Your task to perform on an android device: turn pop-ups on in chrome Image 0: 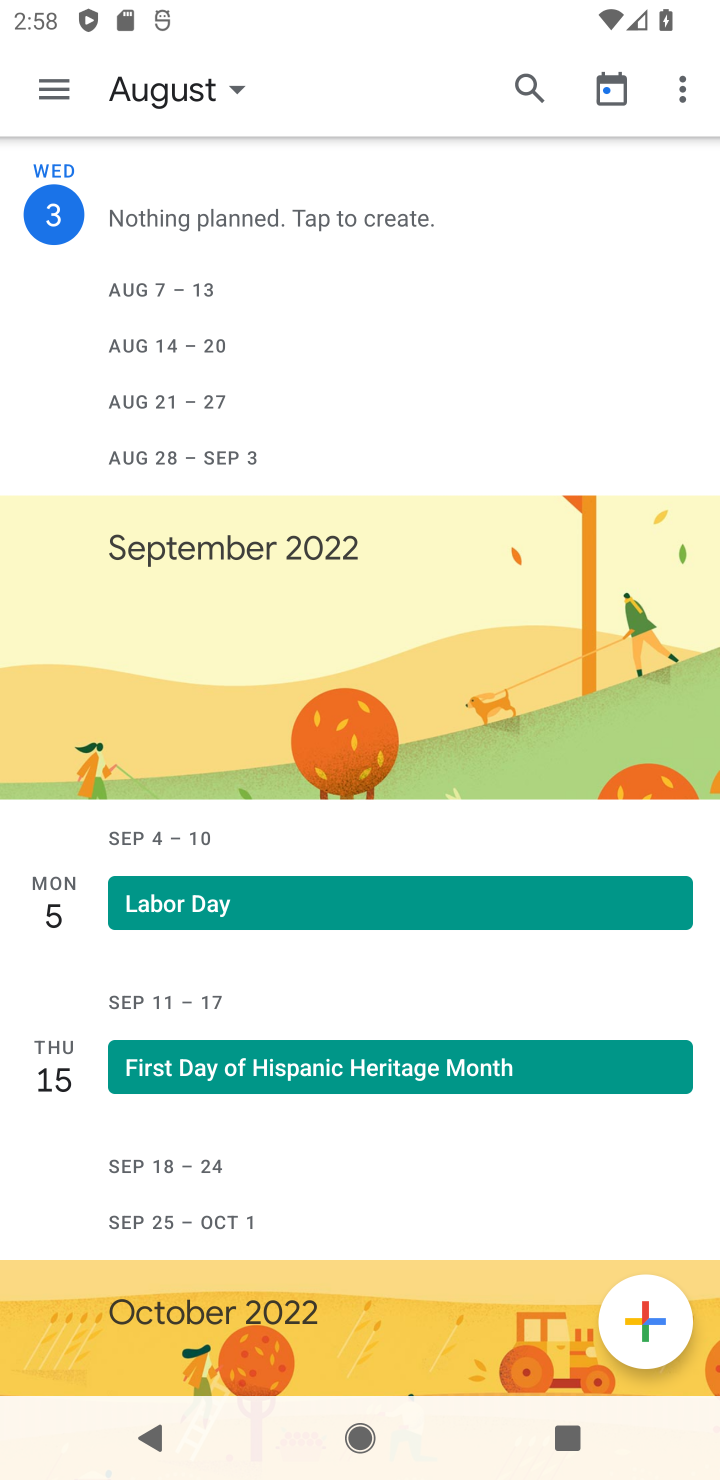
Step 0: press home button
Your task to perform on an android device: turn pop-ups on in chrome Image 1: 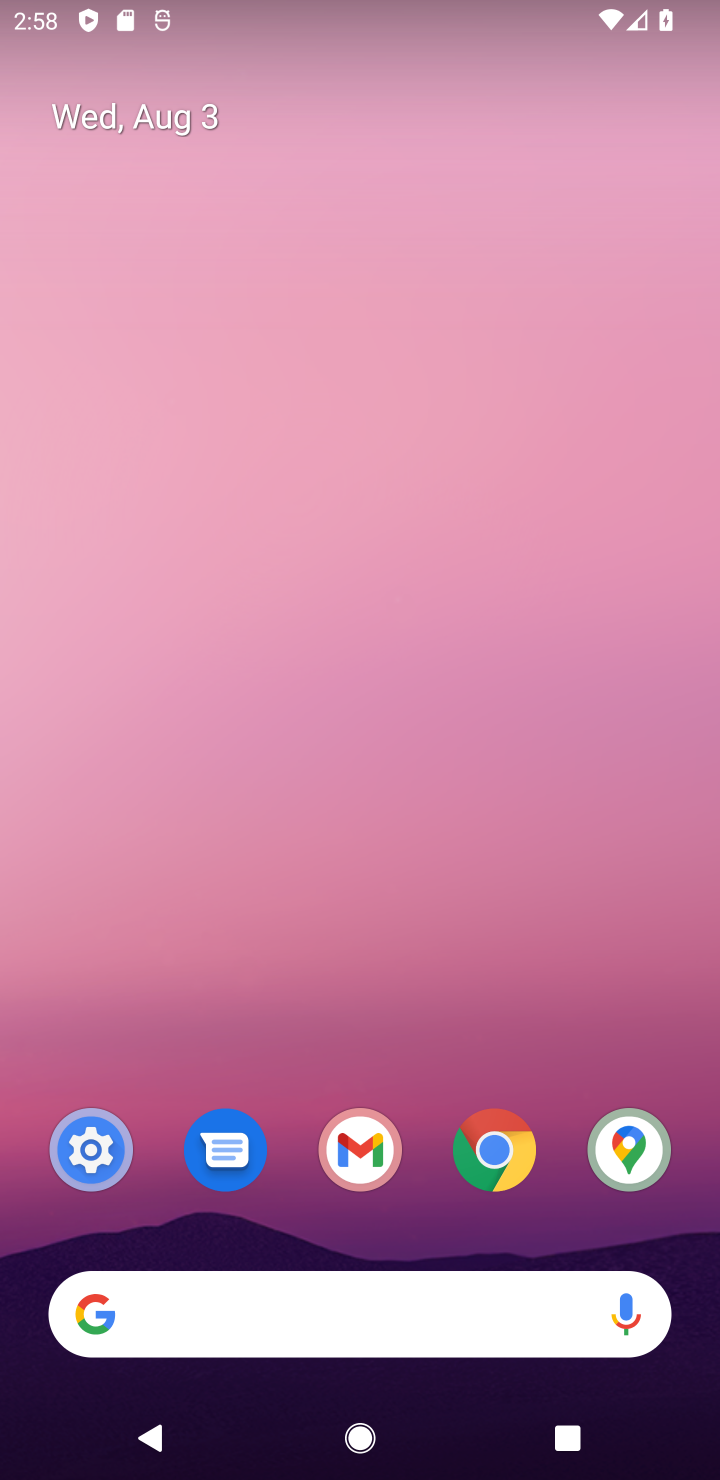
Step 1: click (503, 1156)
Your task to perform on an android device: turn pop-ups on in chrome Image 2: 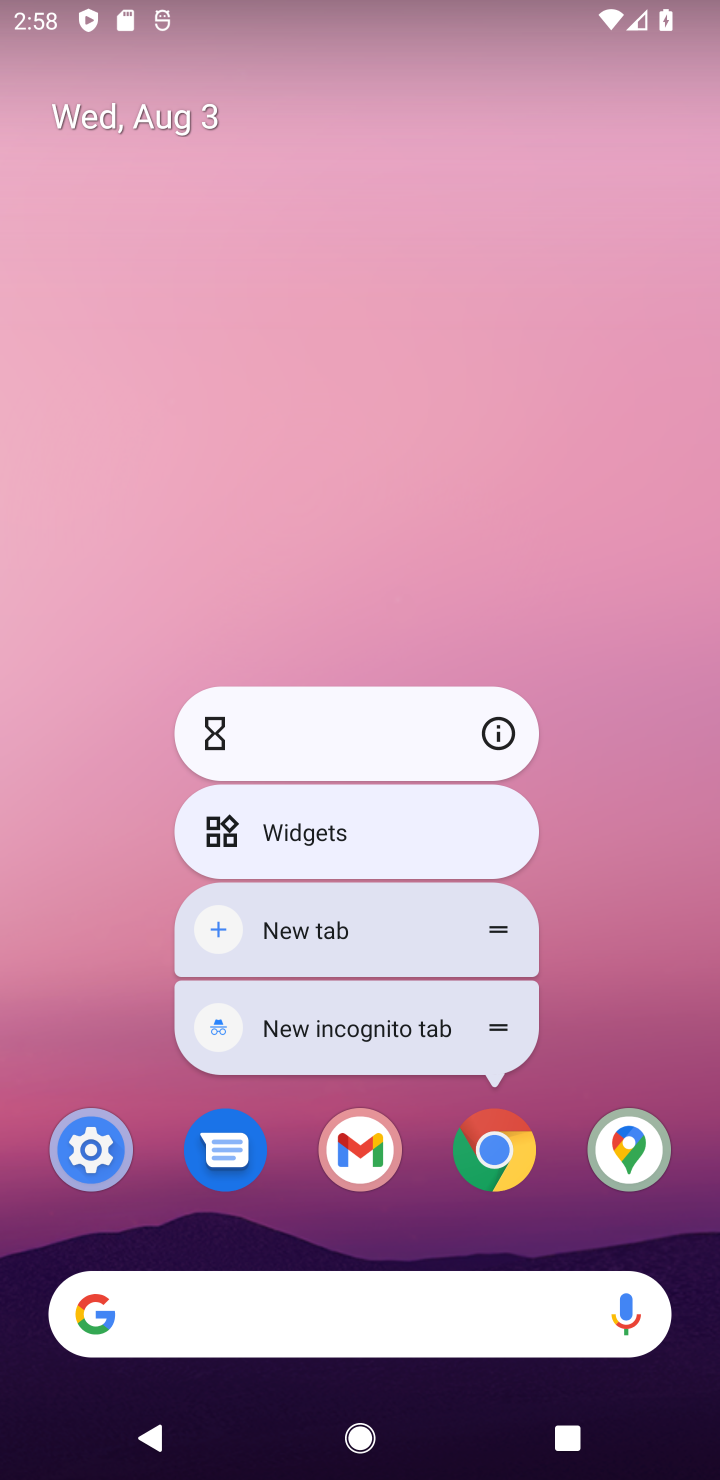
Step 2: click (503, 1156)
Your task to perform on an android device: turn pop-ups on in chrome Image 3: 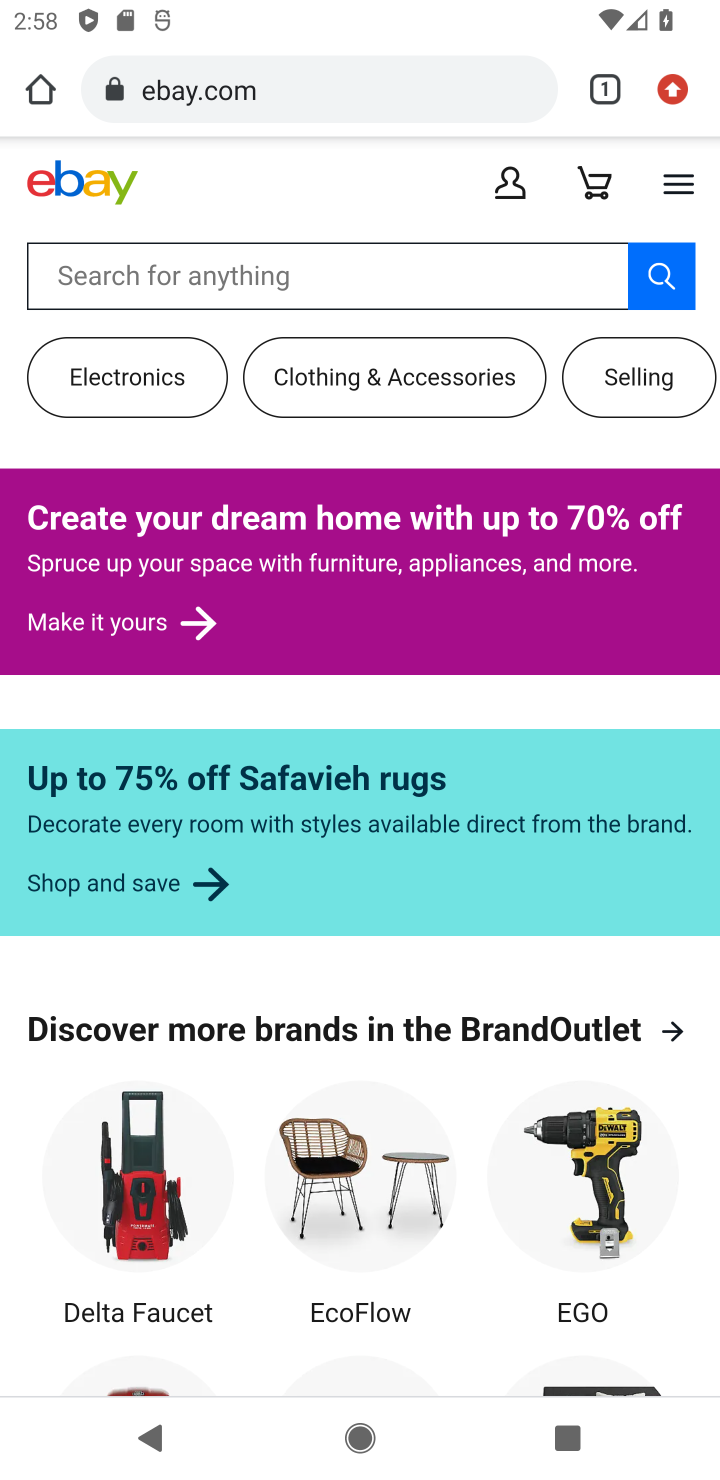
Step 3: drag from (665, 95) to (442, 1225)
Your task to perform on an android device: turn pop-ups on in chrome Image 4: 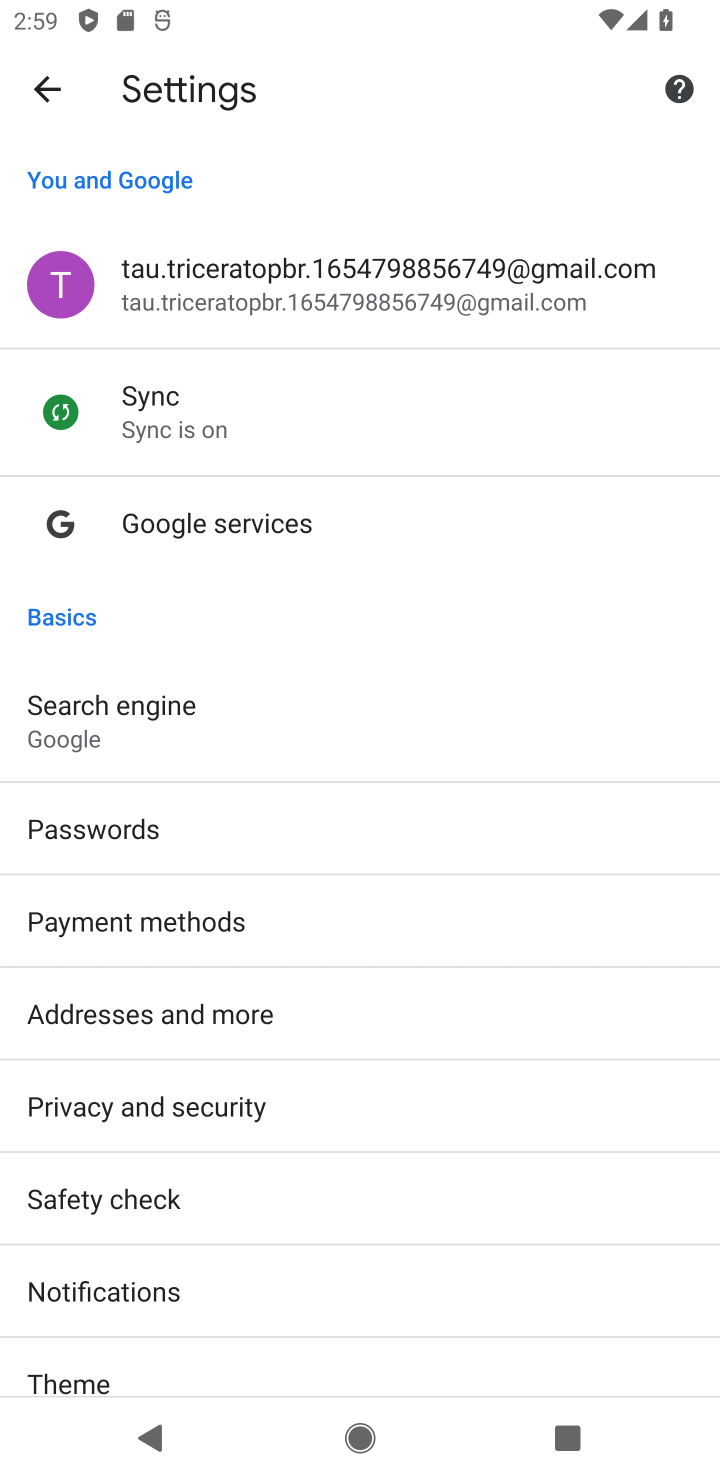
Step 4: drag from (211, 1268) to (365, 173)
Your task to perform on an android device: turn pop-ups on in chrome Image 5: 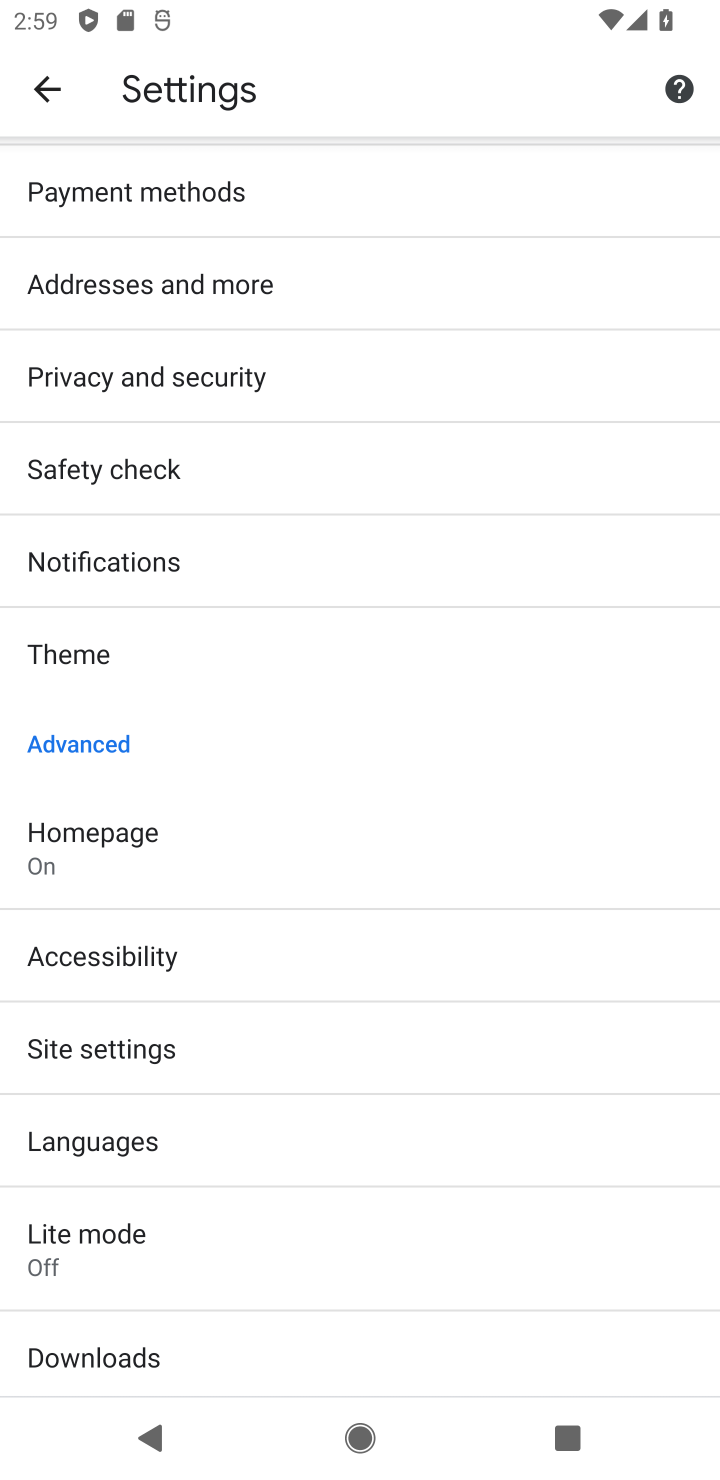
Step 5: click (161, 1054)
Your task to perform on an android device: turn pop-ups on in chrome Image 6: 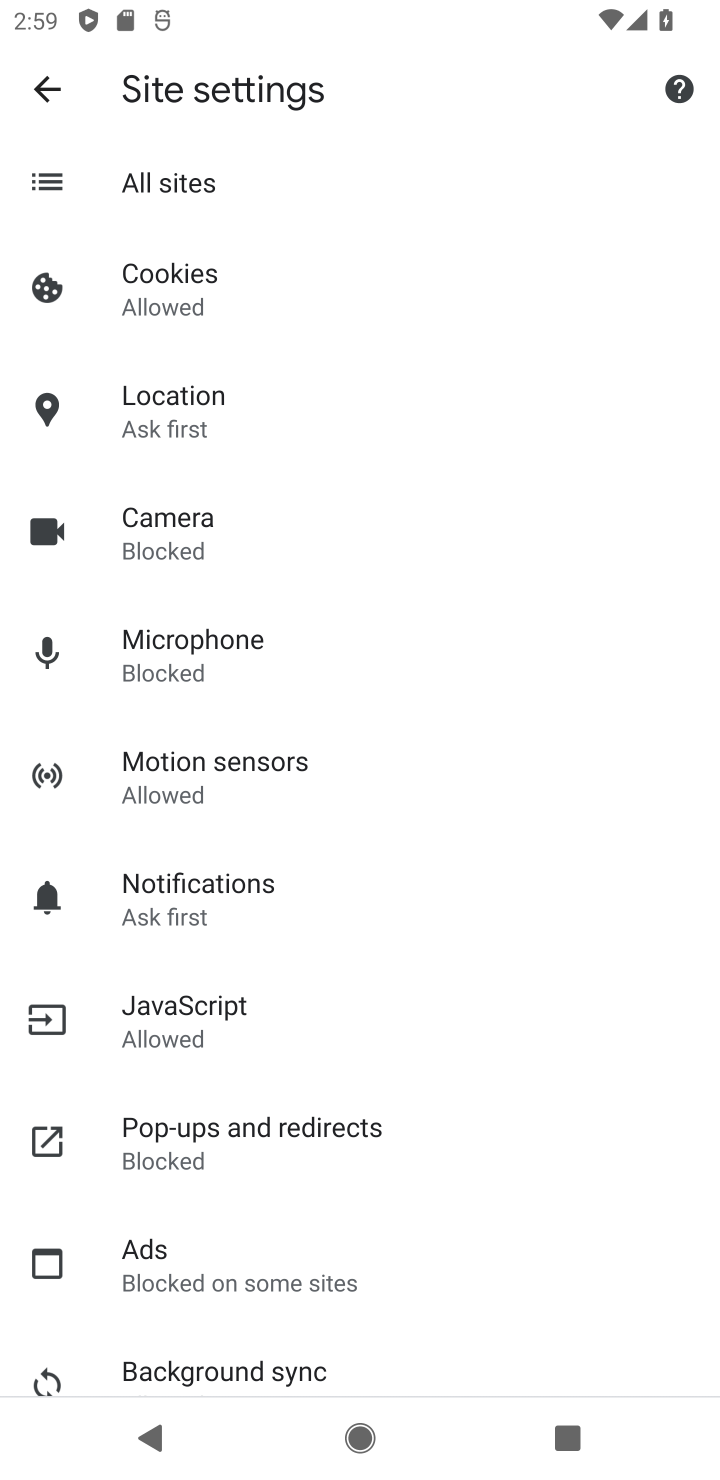
Step 6: click (279, 1131)
Your task to perform on an android device: turn pop-ups on in chrome Image 7: 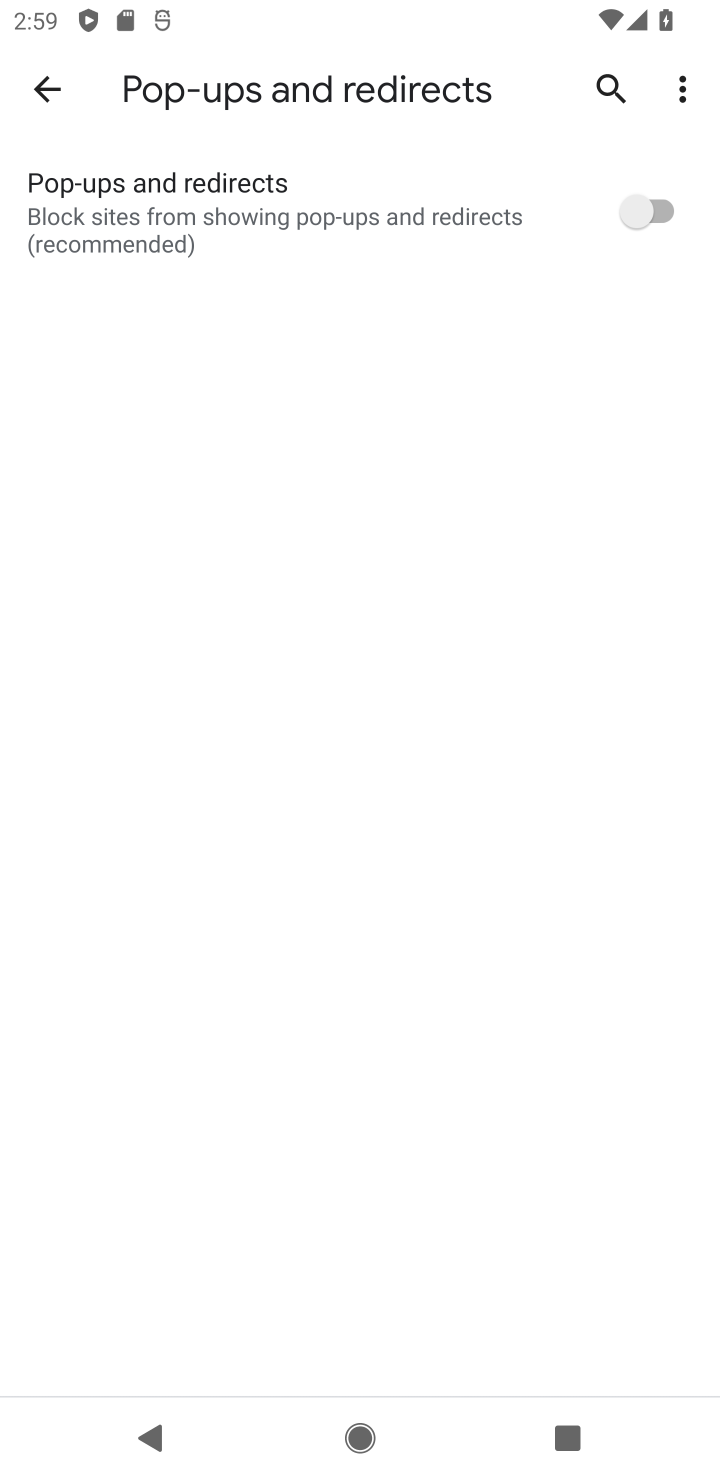
Step 7: click (653, 208)
Your task to perform on an android device: turn pop-ups on in chrome Image 8: 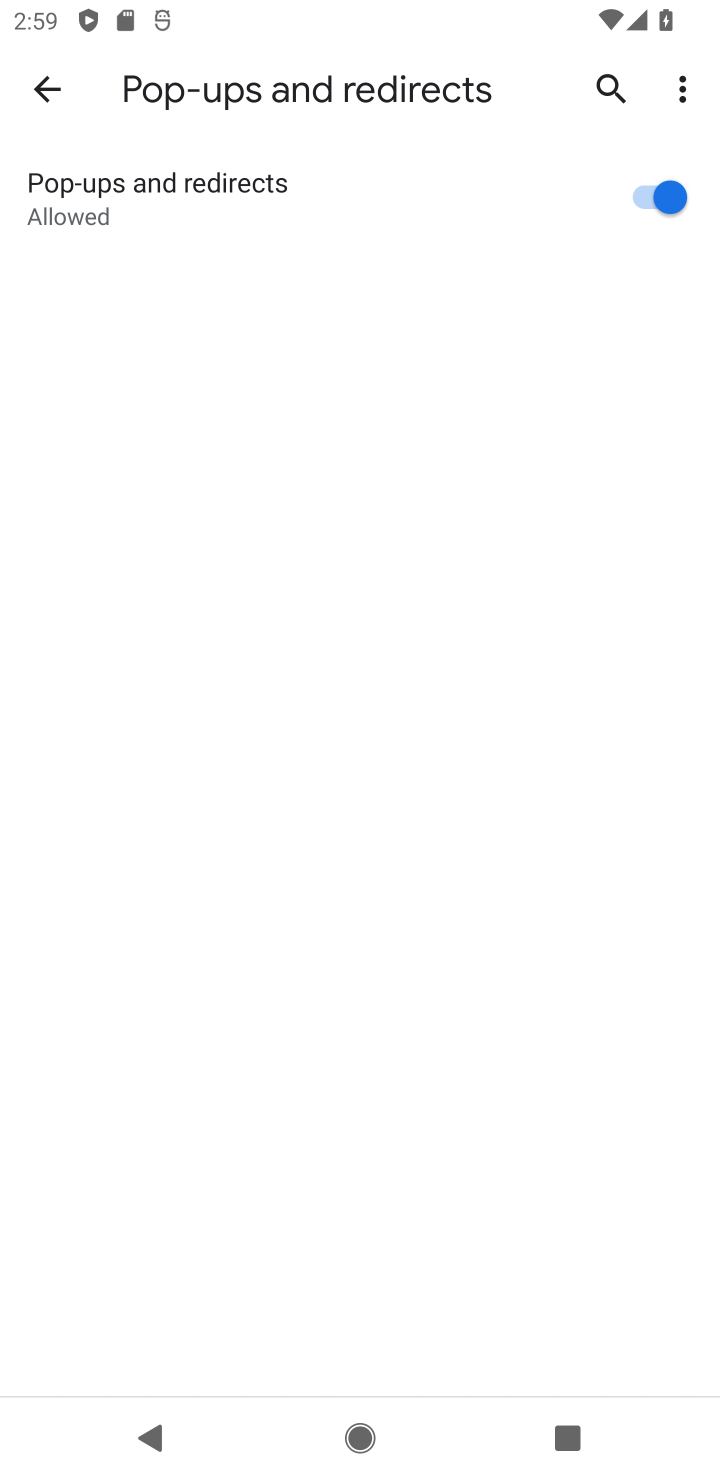
Step 8: task complete